Your task to perform on an android device: toggle notifications settings in the gmail app Image 0: 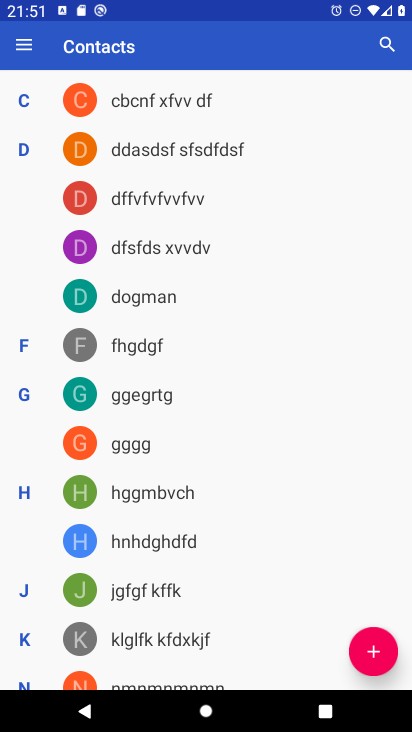
Step 0: press home button
Your task to perform on an android device: toggle notifications settings in the gmail app Image 1: 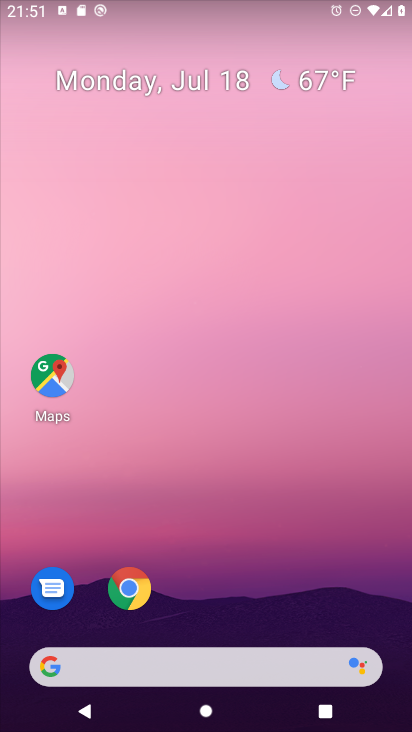
Step 1: drag from (390, 626) to (342, 213)
Your task to perform on an android device: toggle notifications settings in the gmail app Image 2: 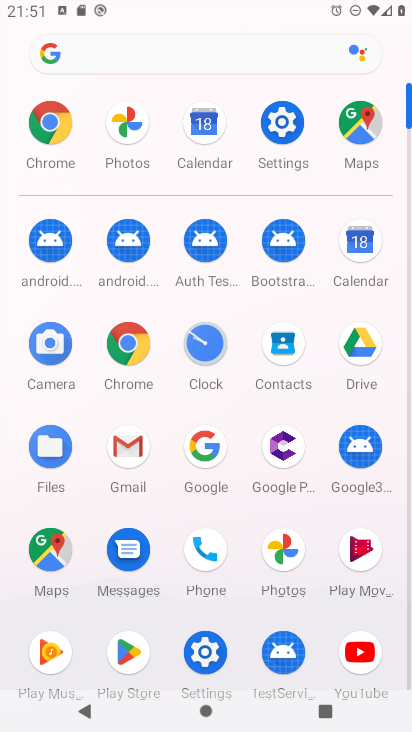
Step 2: click (127, 445)
Your task to perform on an android device: toggle notifications settings in the gmail app Image 3: 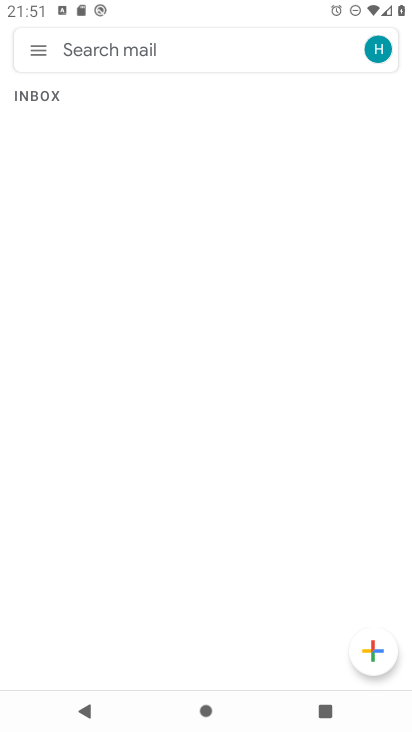
Step 3: click (39, 49)
Your task to perform on an android device: toggle notifications settings in the gmail app Image 4: 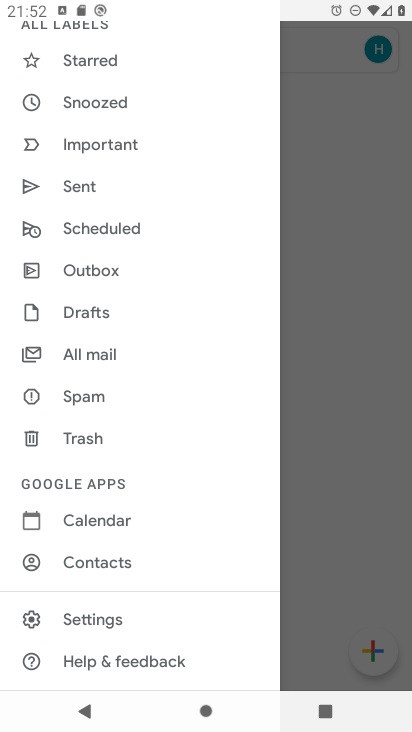
Step 4: click (103, 617)
Your task to perform on an android device: toggle notifications settings in the gmail app Image 5: 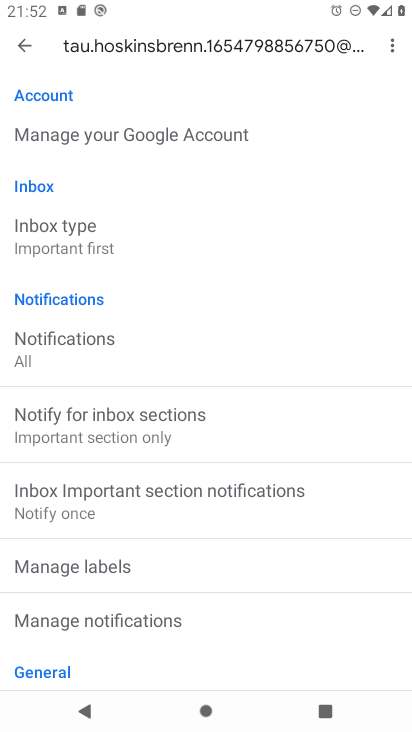
Step 5: click (123, 608)
Your task to perform on an android device: toggle notifications settings in the gmail app Image 6: 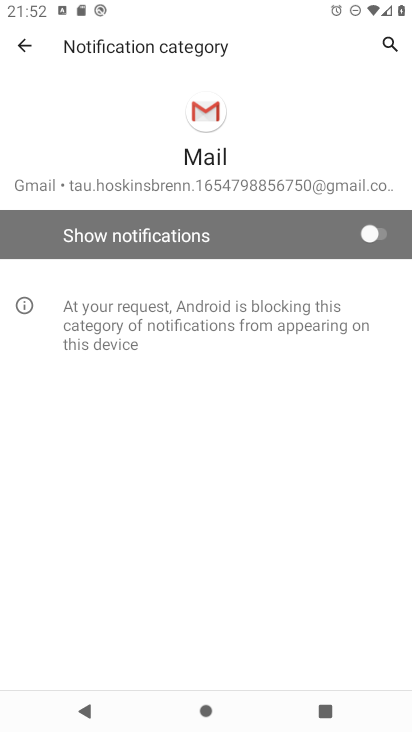
Step 6: click (383, 233)
Your task to perform on an android device: toggle notifications settings in the gmail app Image 7: 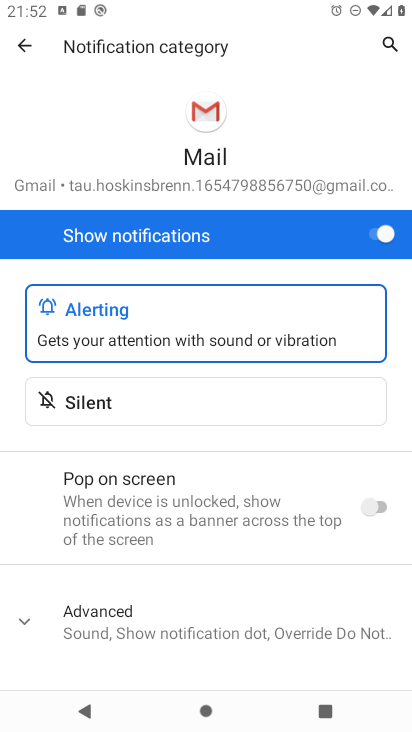
Step 7: task complete